Your task to perform on an android device: stop showing notifications on the lock screen Image 0: 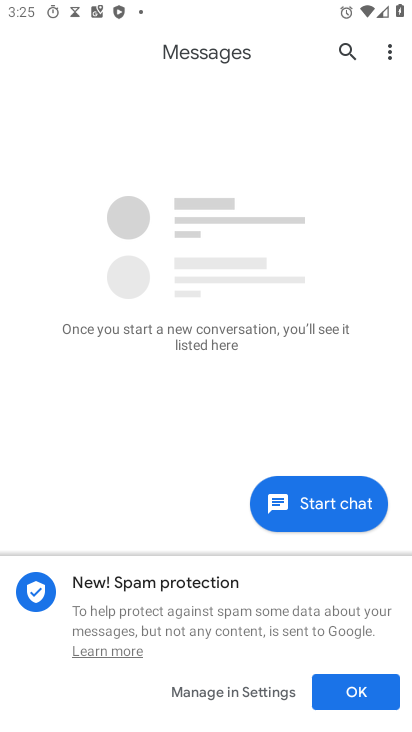
Step 0: press home button
Your task to perform on an android device: stop showing notifications on the lock screen Image 1: 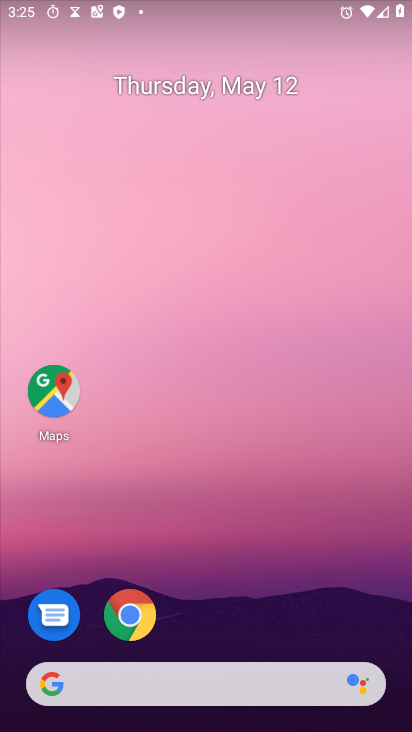
Step 1: drag from (37, 547) to (228, 190)
Your task to perform on an android device: stop showing notifications on the lock screen Image 2: 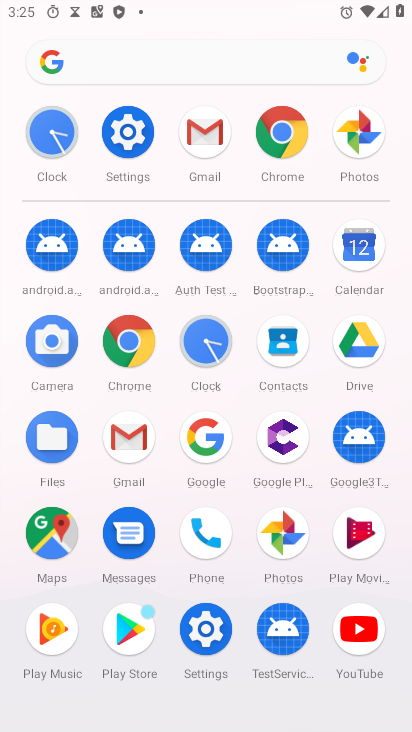
Step 2: click (135, 140)
Your task to perform on an android device: stop showing notifications on the lock screen Image 3: 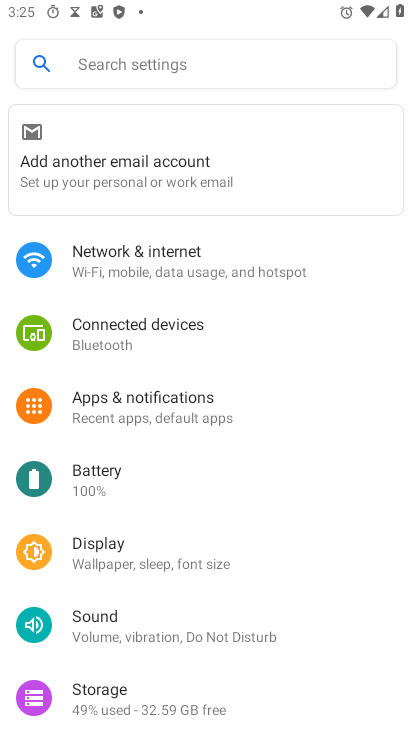
Step 3: click (112, 417)
Your task to perform on an android device: stop showing notifications on the lock screen Image 4: 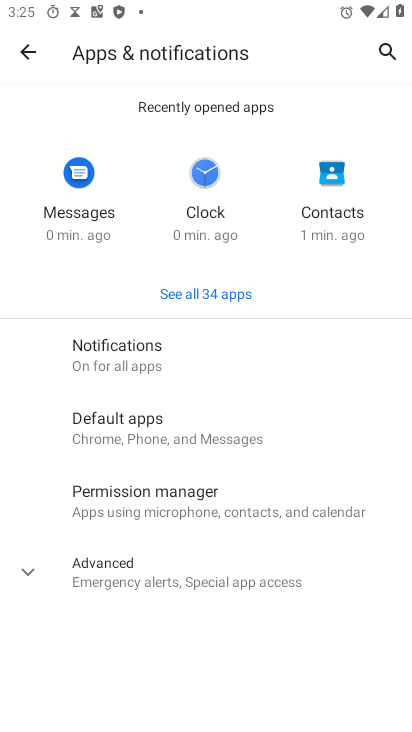
Step 4: click (118, 357)
Your task to perform on an android device: stop showing notifications on the lock screen Image 5: 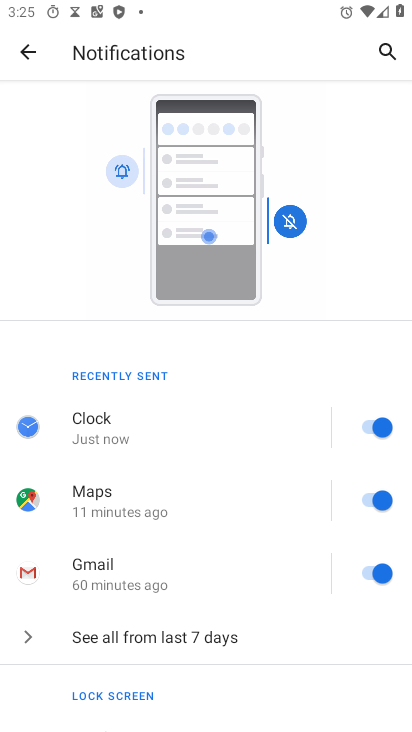
Step 5: click (74, 704)
Your task to perform on an android device: stop showing notifications on the lock screen Image 6: 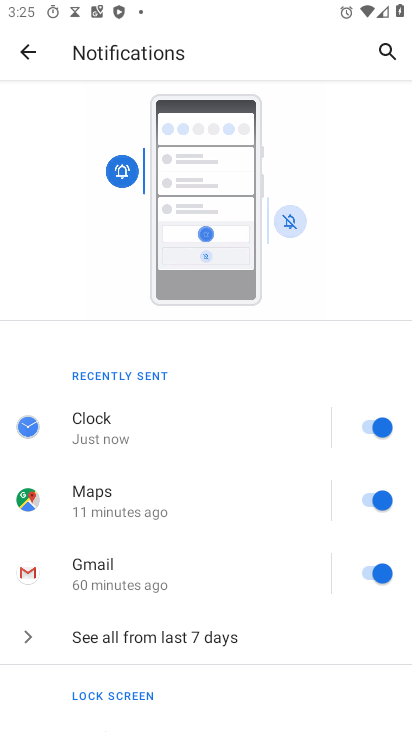
Step 6: drag from (54, 447) to (209, 213)
Your task to perform on an android device: stop showing notifications on the lock screen Image 7: 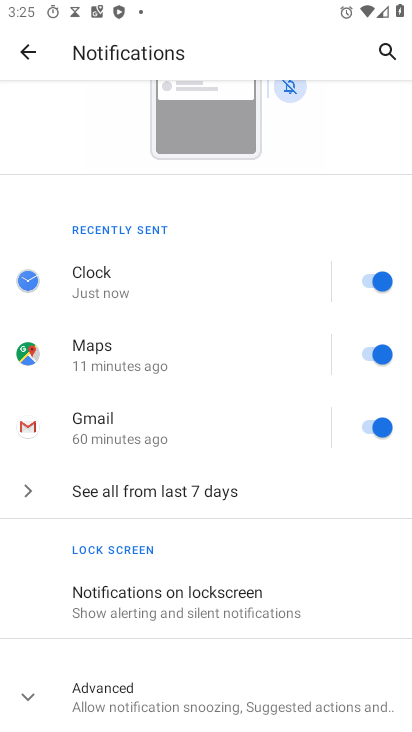
Step 7: click (131, 588)
Your task to perform on an android device: stop showing notifications on the lock screen Image 8: 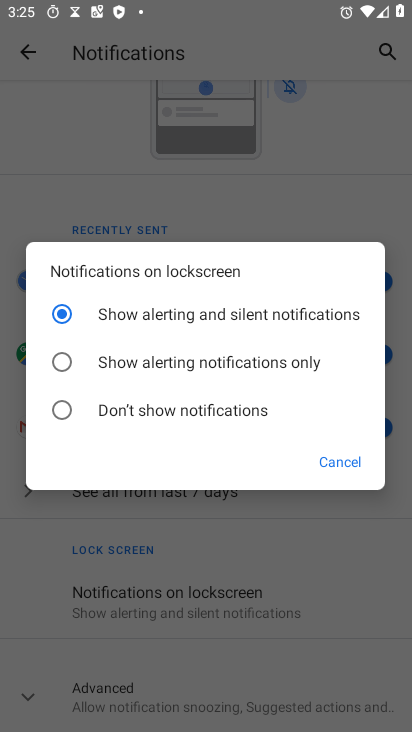
Step 8: click (189, 420)
Your task to perform on an android device: stop showing notifications on the lock screen Image 9: 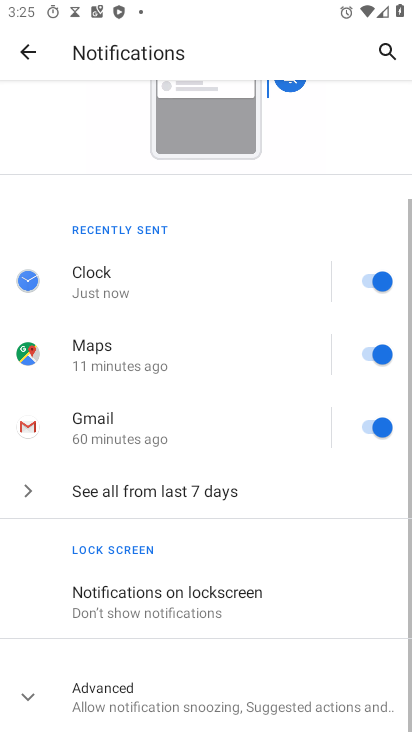
Step 9: task complete